Your task to perform on an android device: Play the last video I watched on Youtube Image 0: 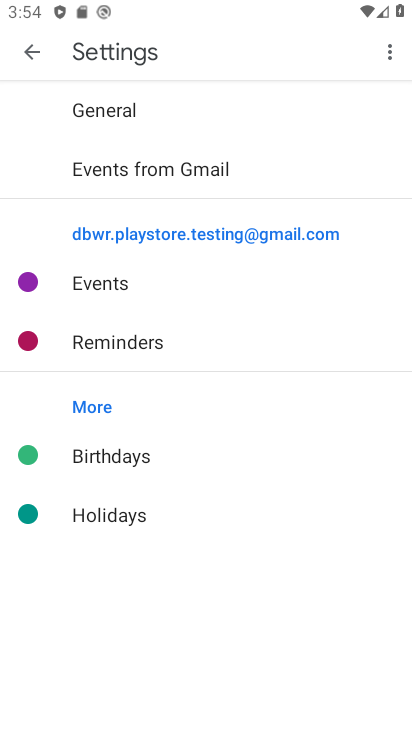
Step 0: press home button
Your task to perform on an android device: Play the last video I watched on Youtube Image 1: 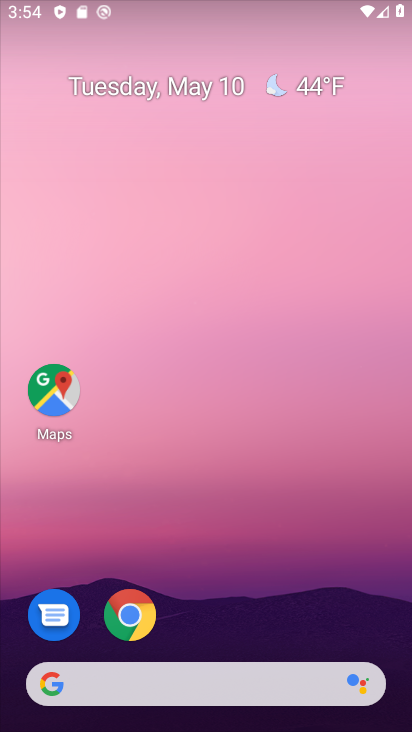
Step 1: drag from (228, 702) to (230, 290)
Your task to perform on an android device: Play the last video I watched on Youtube Image 2: 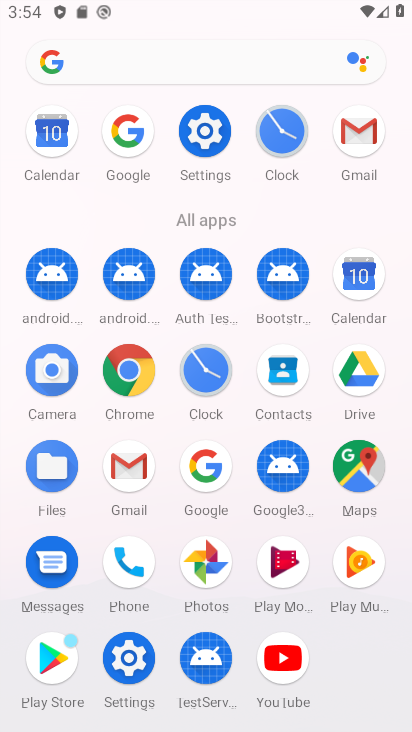
Step 2: click (286, 655)
Your task to perform on an android device: Play the last video I watched on Youtube Image 3: 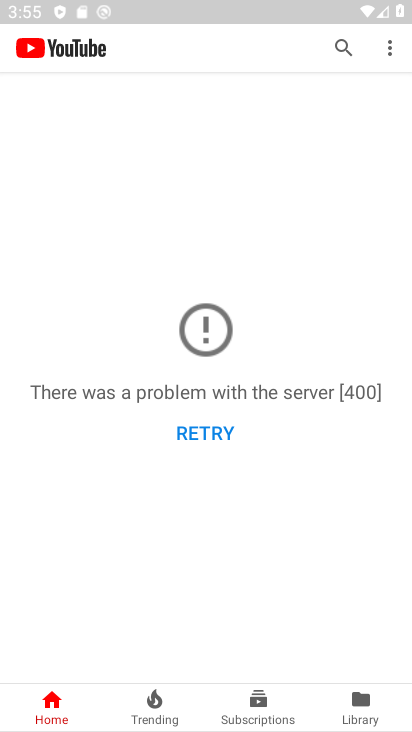
Step 3: click (354, 696)
Your task to perform on an android device: Play the last video I watched on Youtube Image 4: 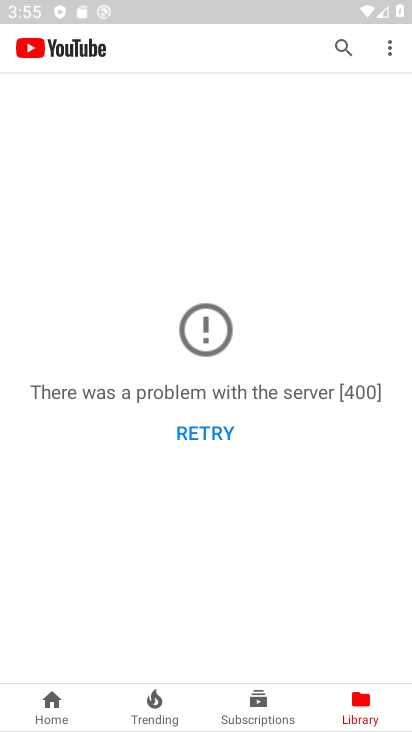
Step 4: task complete